Your task to perform on an android device: Go to internet settings Image 0: 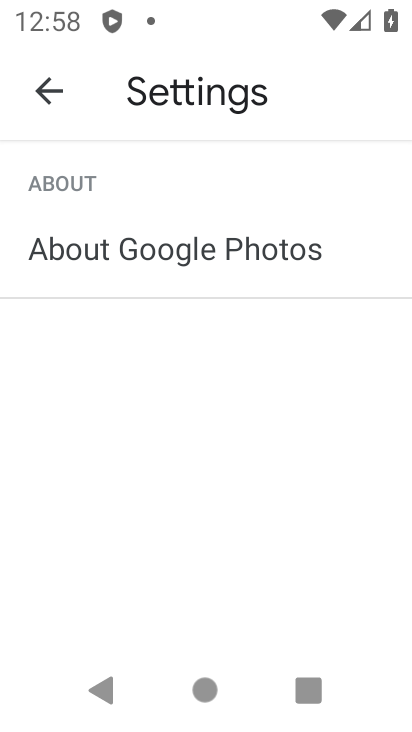
Step 0: press home button
Your task to perform on an android device: Go to internet settings Image 1: 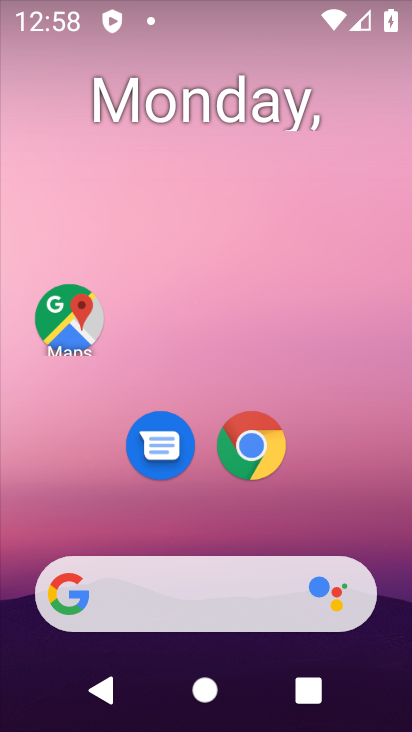
Step 1: drag from (392, 592) to (339, 75)
Your task to perform on an android device: Go to internet settings Image 2: 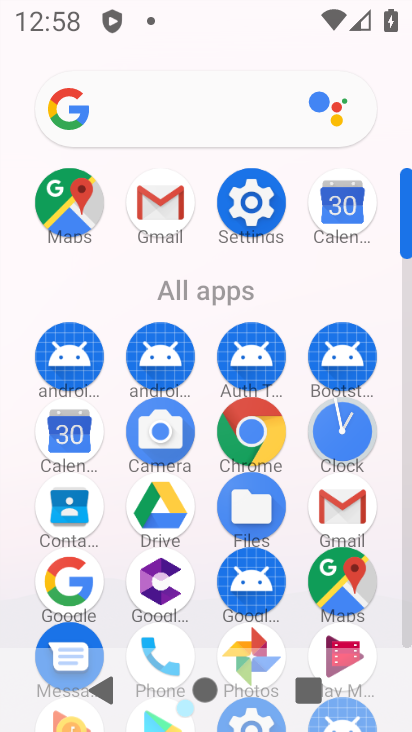
Step 2: click (409, 628)
Your task to perform on an android device: Go to internet settings Image 3: 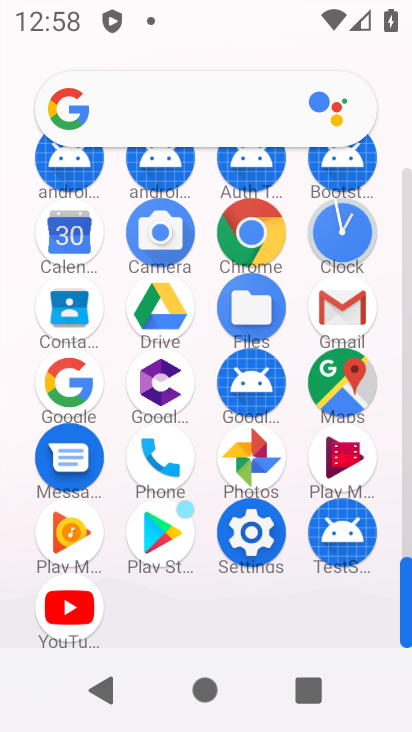
Step 3: click (255, 532)
Your task to perform on an android device: Go to internet settings Image 4: 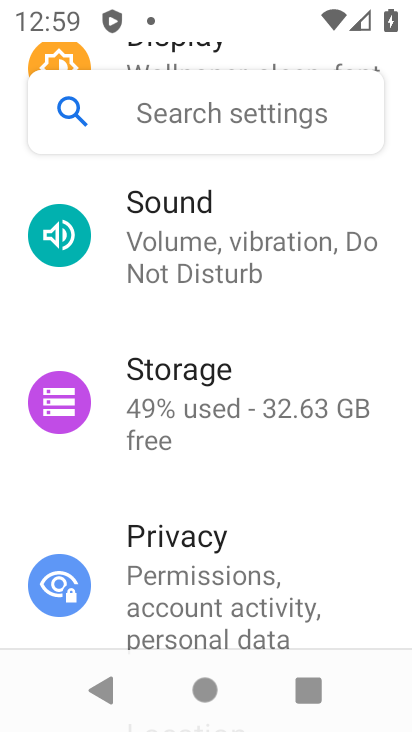
Step 4: drag from (369, 184) to (314, 507)
Your task to perform on an android device: Go to internet settings Image 5: 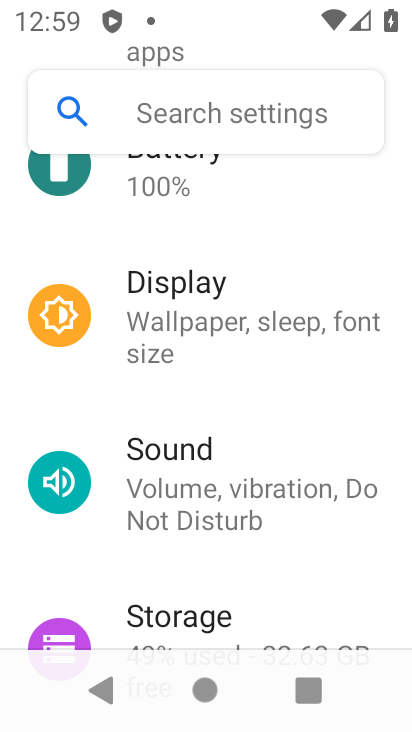
Step 5: drag from (320, 267) to (313, 621)
Your task to perform on an android device: Go to internet settings Image 6: 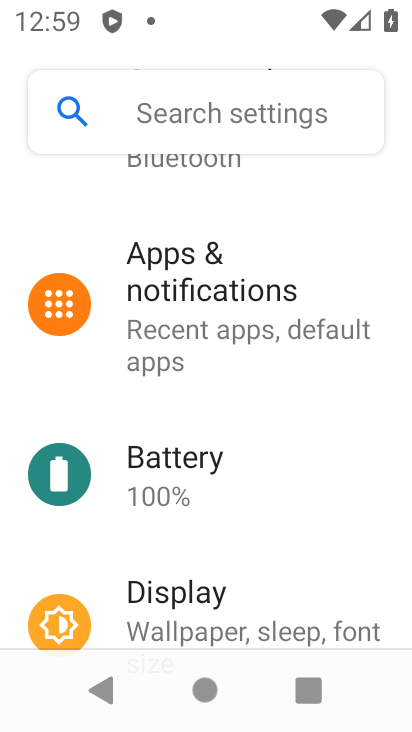
Step 6: drag from (321, 198) to (311, 444)
Your task to perform on an android device: Go to internet settings Image 7: 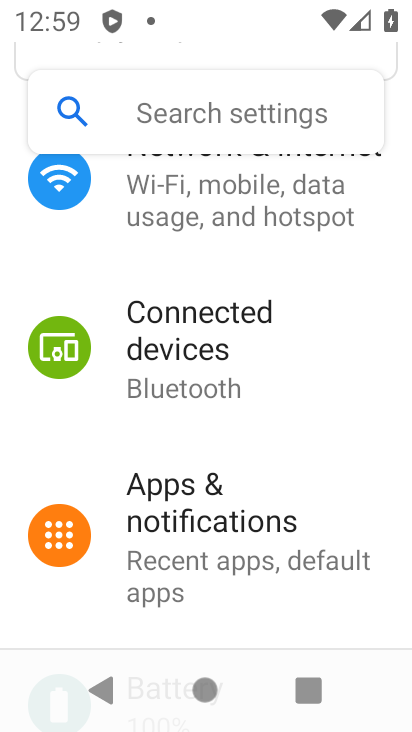
Step 7: drag from (317, 222) to (310, 505)
Your task to perform on an android device: Go to internet settings Image 8: 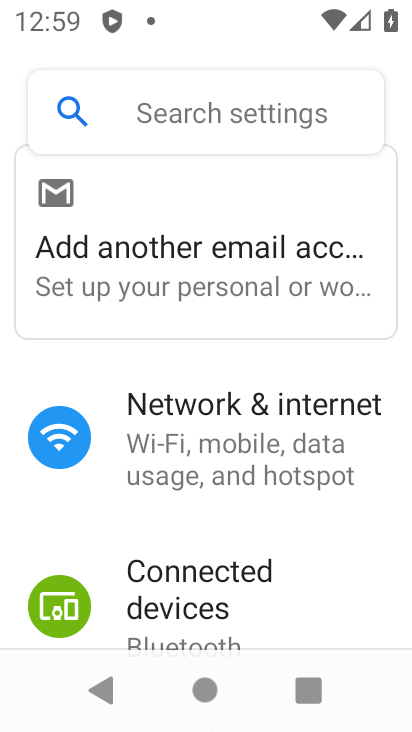
Step 8: click (185, 419)
Your task to perform on an android device: Go to internet settings Image 9: 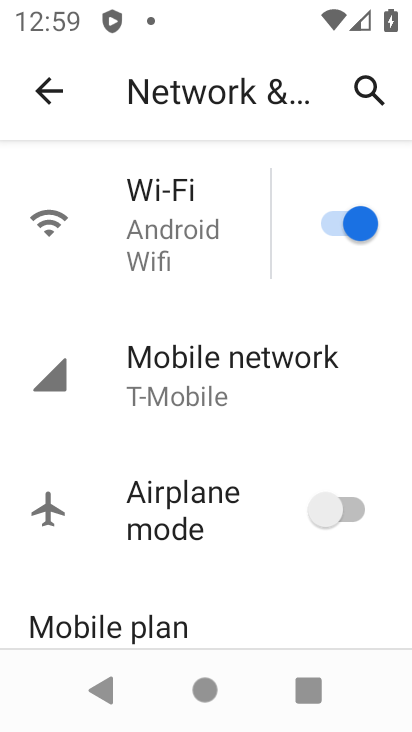
Step 9: click (162, 344)
Your task to perform on an android device: Go to internet settings Image 10: 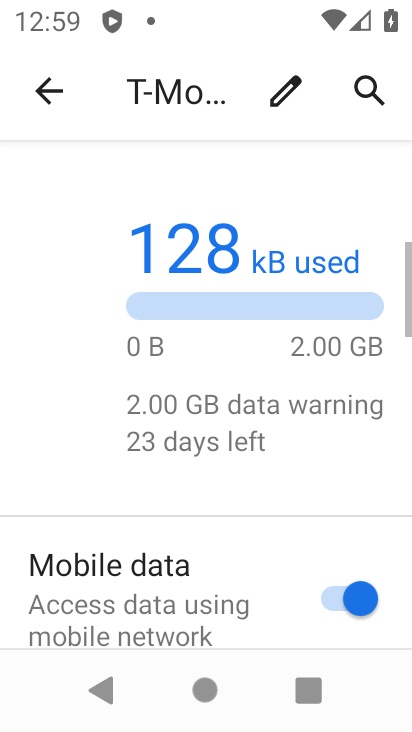
Step 10: task complete